Your task to perform on an android device: change the clock style Image 0: 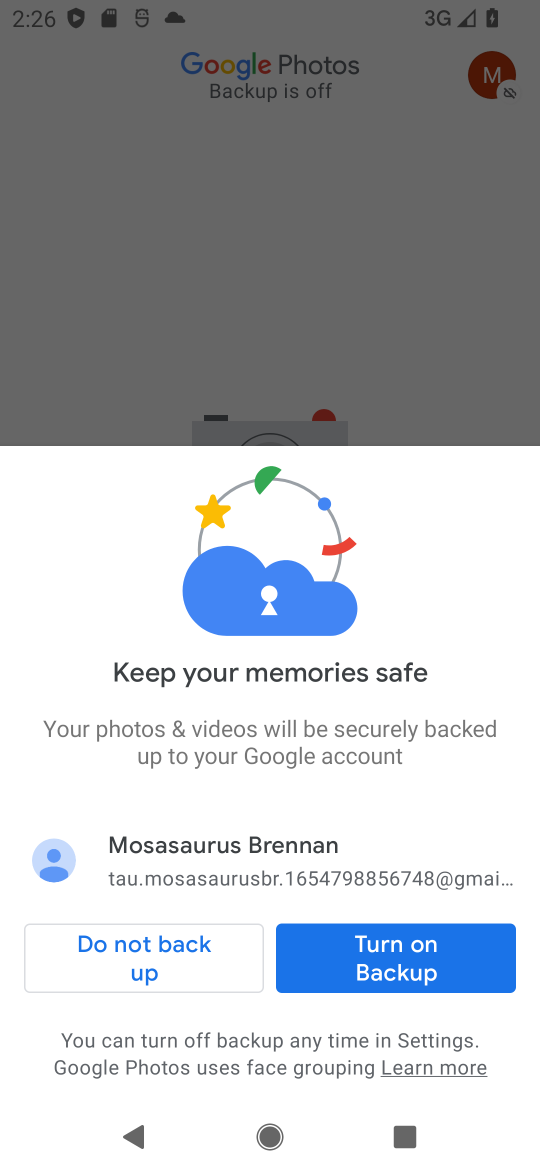
Step 0: press home button
Your task to perform on an android device: change the clock style Image 1: 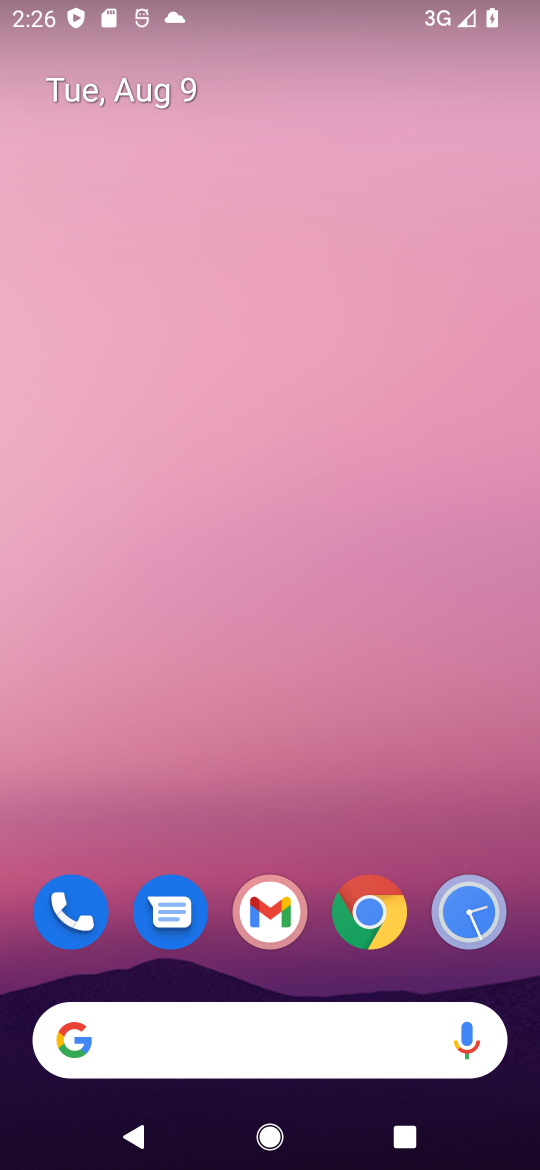
Step 1: click (482, 925)
Your task to perform on an android device: change the clock style Image 2: 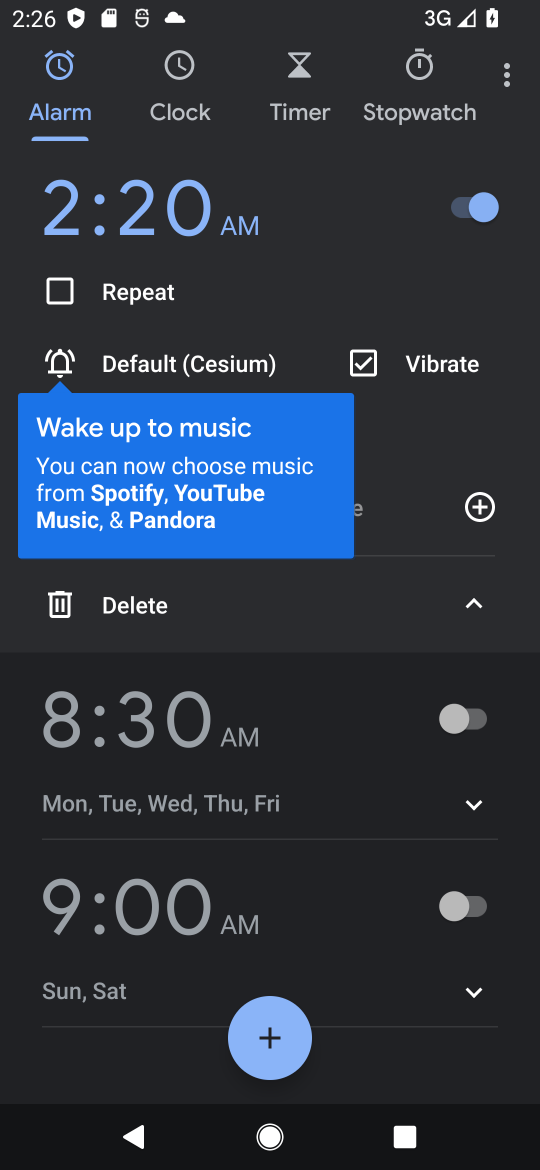
Step 2: click (499, 77)
Your task to perform on an android device: change the clock style Image 3: 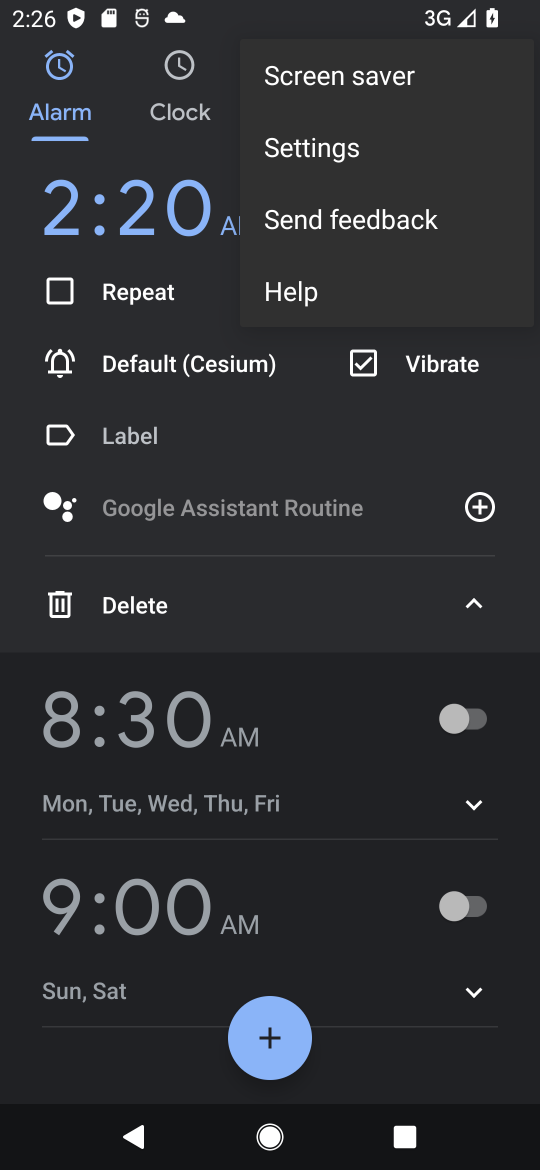
Step 3: click (325, 144)
Your task to perform on an android device: change the clock style Image 4: 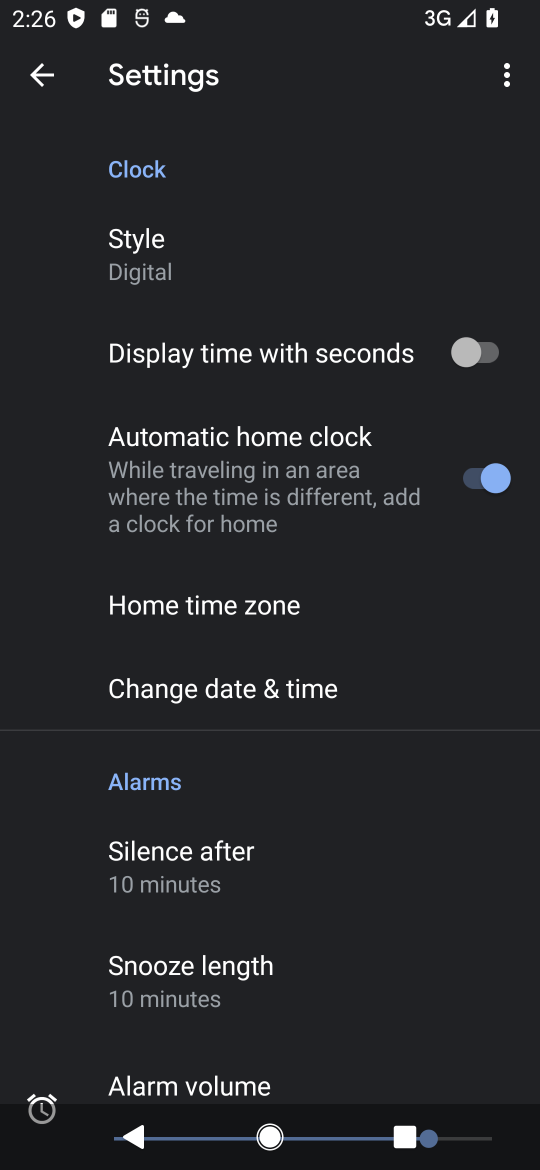
Step 4: click (146, 233)
Your task to perform on an android device: change the clock style Image 5: 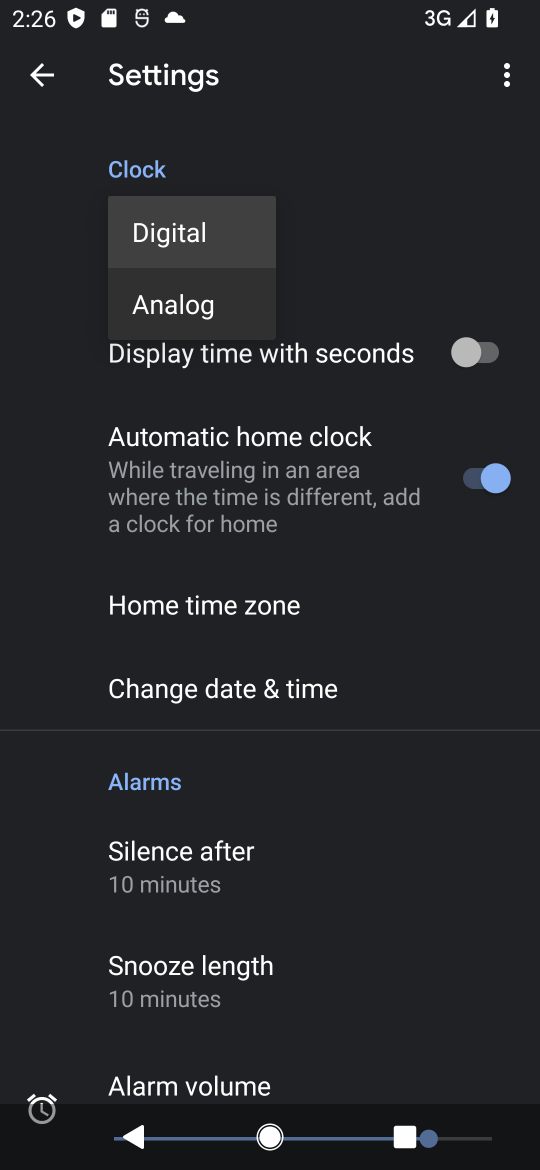
Step 5: click (173, 295)
Your task to perform on an android device: change the clock style Image 6: 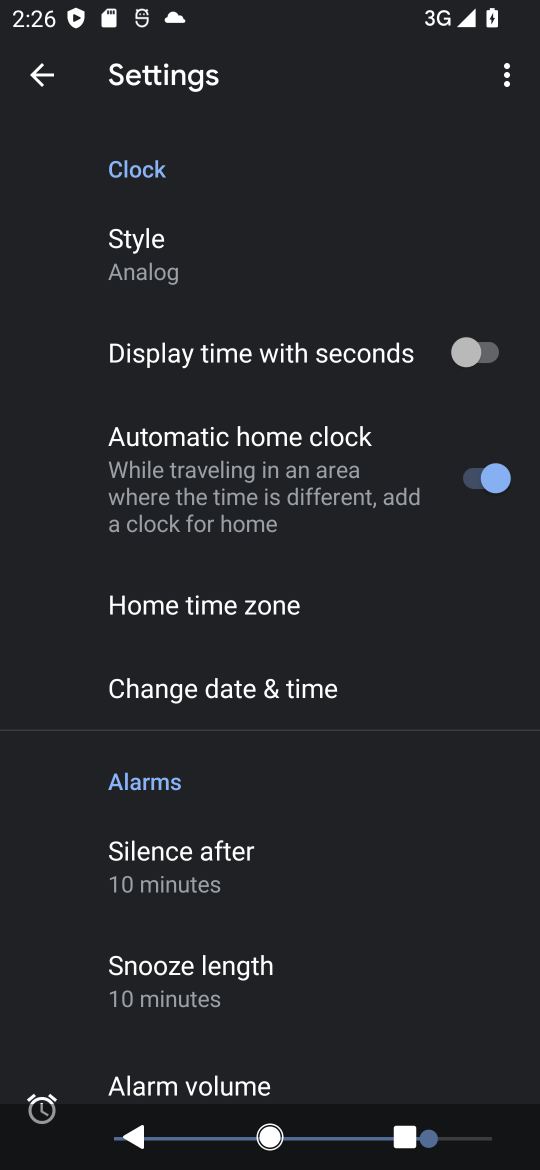
Step 6: task complete